Your task to perform on an android device: Open location settings Image 0: 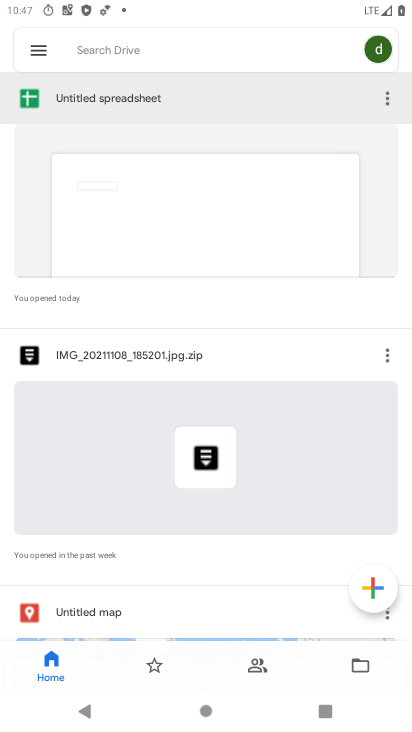
Step 0: click (31, 46)
Your task to perform on an android device: Open location settings Image 1: 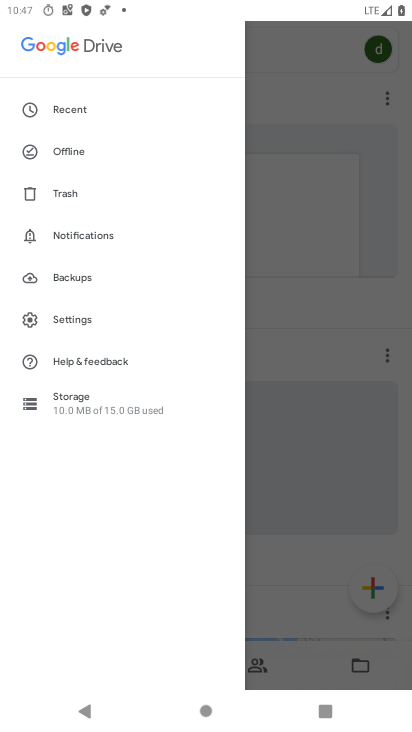
Step 1: press home button
Your task to perform on an android device: Open location settings Image 2: 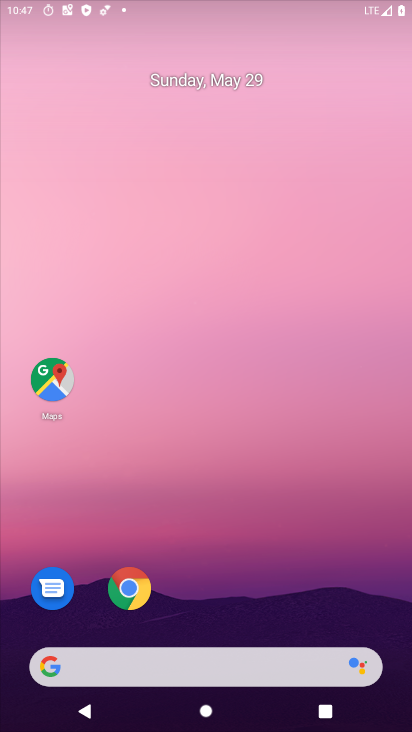
Step 2: drag from (197, 610) to (179, 113)
Your task to perform on an android device: Open location settings Image 3: 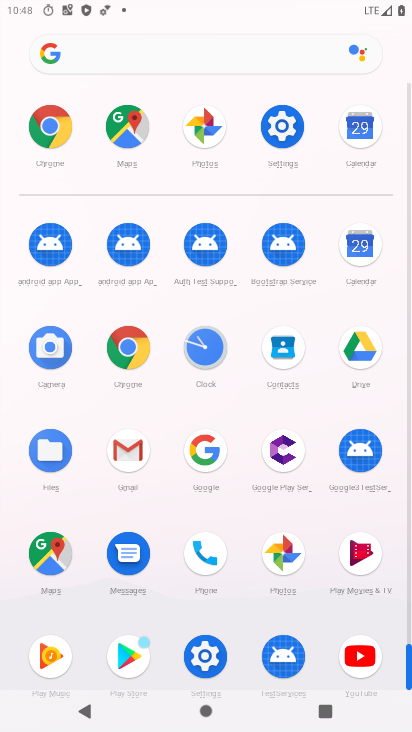
Step 3: click (205, 668)
Your task to perform on an android device: Open location settings Image 4: 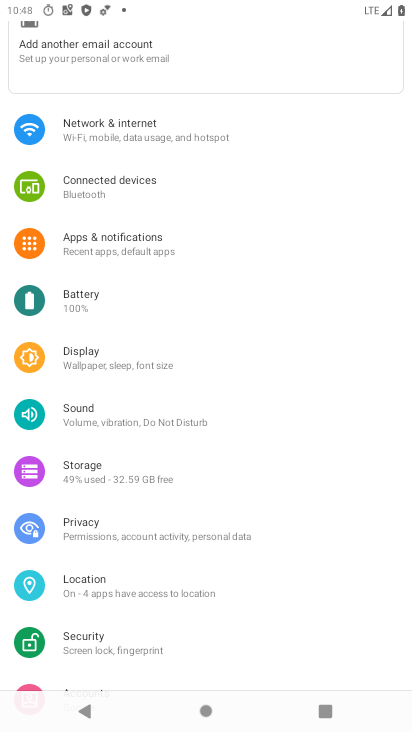
Step 4: click (156, 586)
Your task to perform on an android device: Open location settings Image 5: 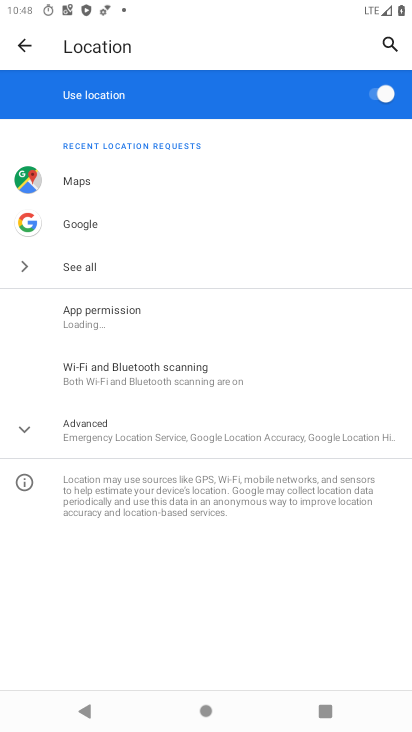
Step 5: click (107, 412)
Your task to perform on an android device: Open location settings Image 6: 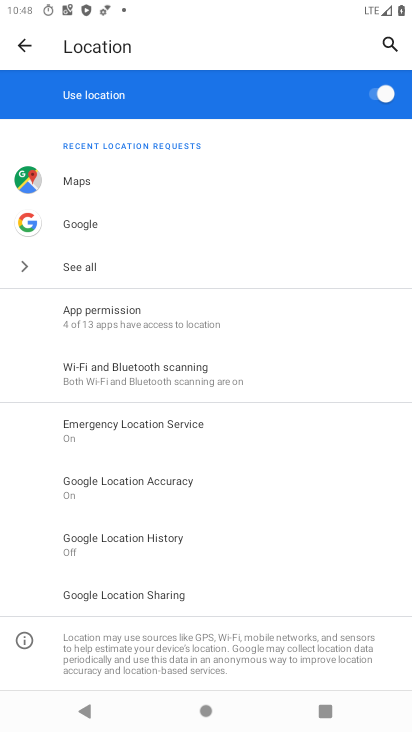
Step 6: click (157, 542)
Your task to perform on an android device: Open location settings Image 7: 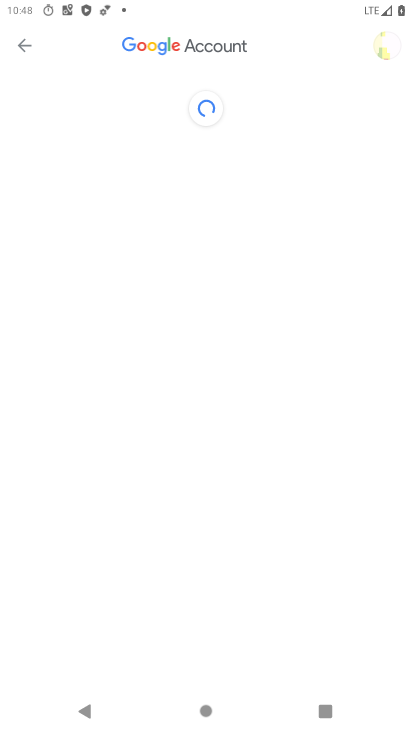
Step 7: task complete